Your task to perform on an android device: toggle improve location accuracy Image 0: 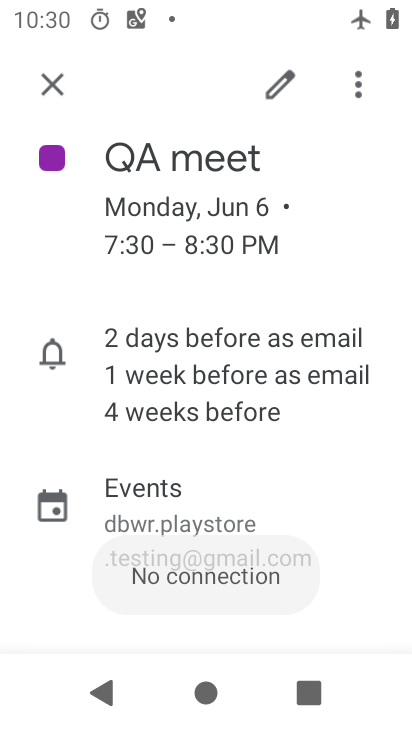
Step 0: press home button
Your task to perform on an android device: toggle improve location accuracy Image 1: 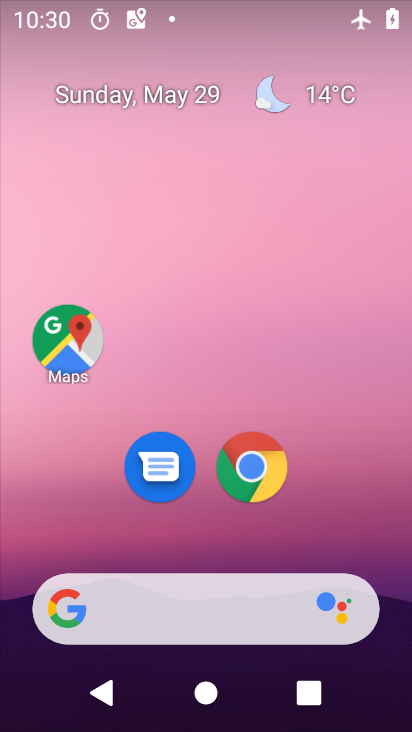
Step 1: drag from (205, 548) to (189, 165)
Your task to perform on an android device: toggle improve location accuracy Image 2: 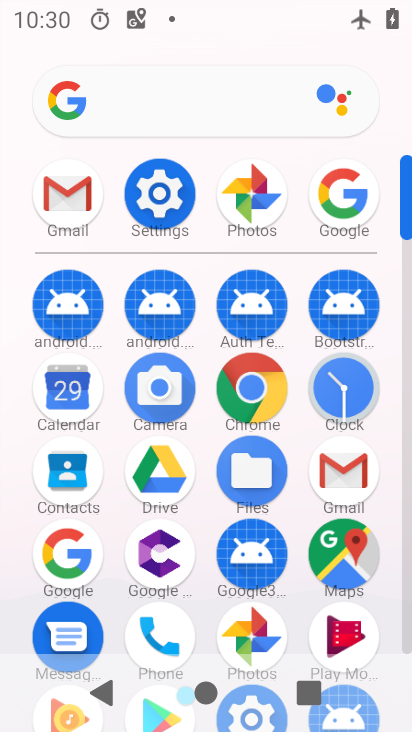
Step 2: click (174, 174)
Your task to perform on an android device: toggle improve location accuracy Image 3: 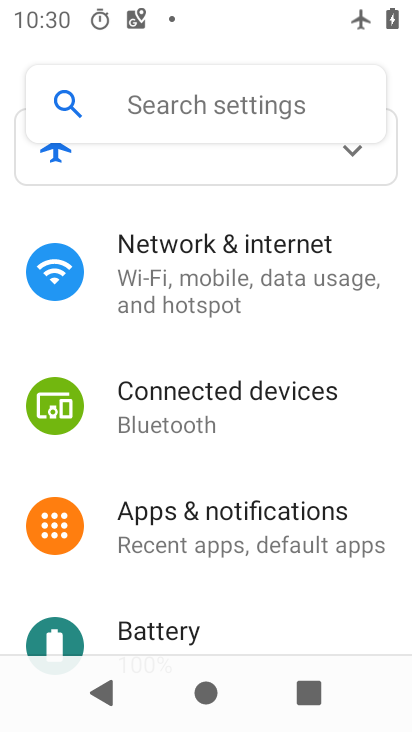
Step 3: drag from (271, 586) to (274, 265)
Your task to perform on an android device: toggle improve location accuracy Image 4: 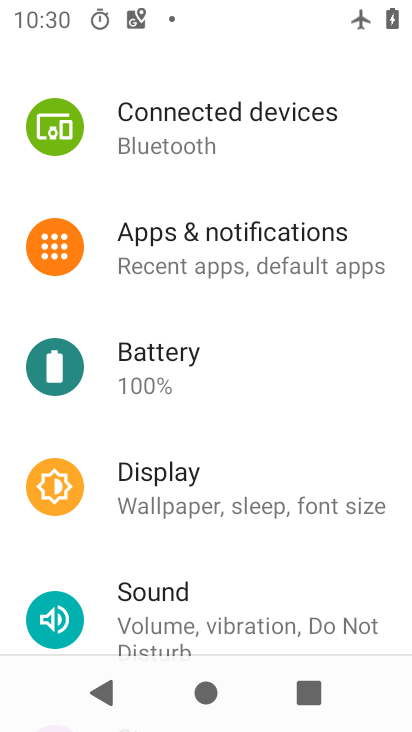
Step 4: drag from (265, 586) to (238, 197)
Your task to perform on an android device: toggle improve location accuracy Image 5: 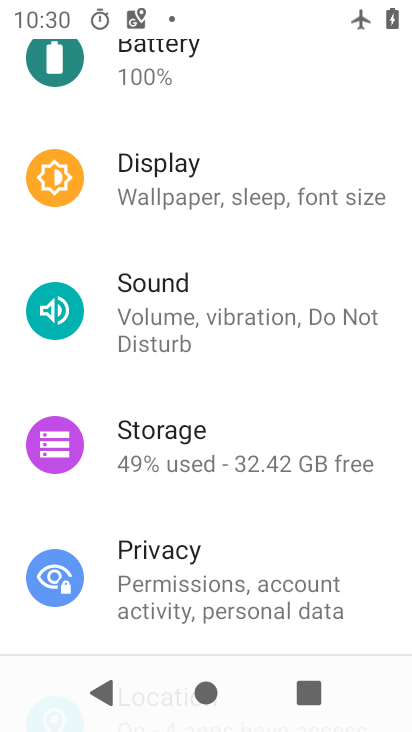
Step 5: drag from (229, 600) to (232, 315)
Your task to perform on an android device: toggle improve location accuracy Image 6: 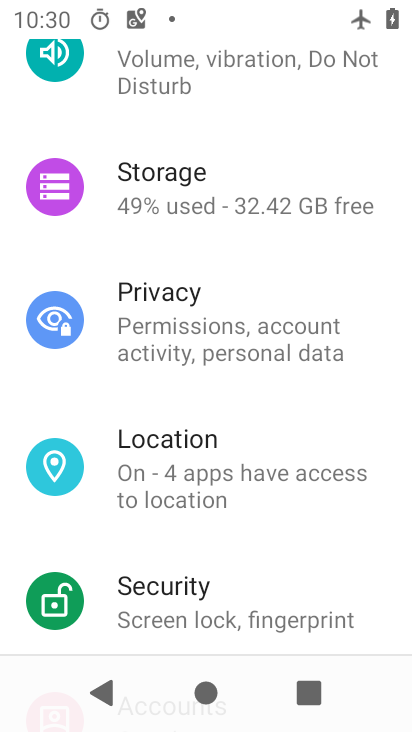
Step 6: click (204, 478)
Your task to perform on an android device: toggle improve location accuracy Image 7: 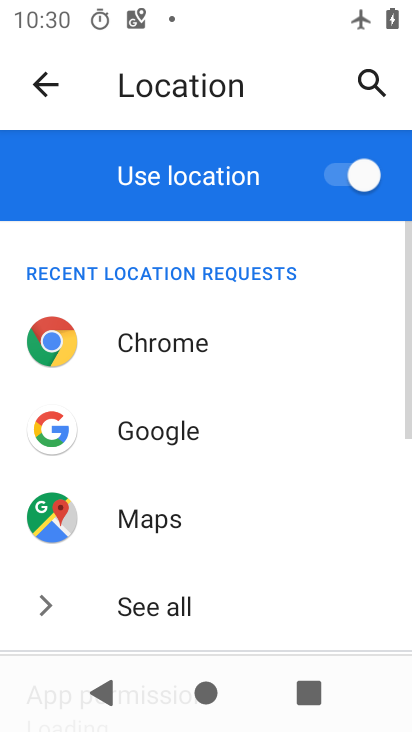
Step 7: drag from (204, 545) to (217, 260)
Your task to perform on an android device: toggle improve location accuracy Image 8: 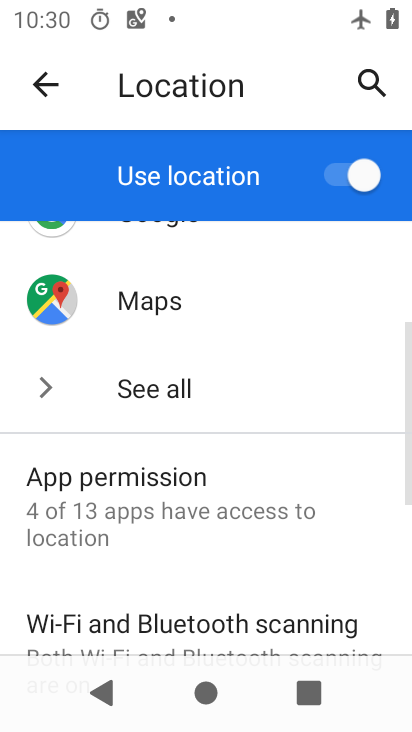
Step 8: drag from (255, 542) to (246, 285)
Your task to perform on an android device: toggle improve location accuracy Image 9: 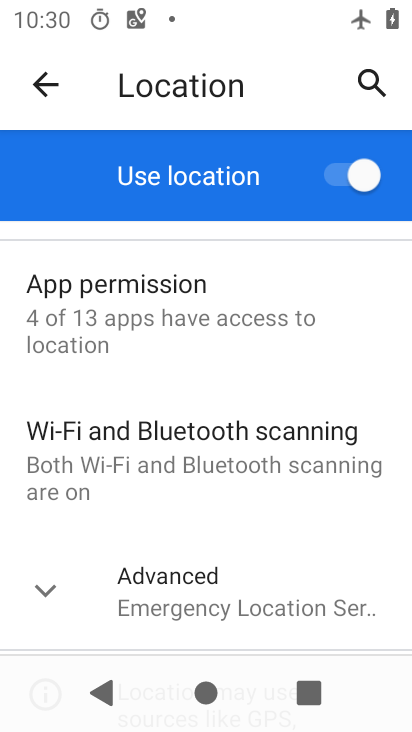
Step 9: click (206, 597)
Your task to perform on an android device: toggle improve location accuracy Image 10: 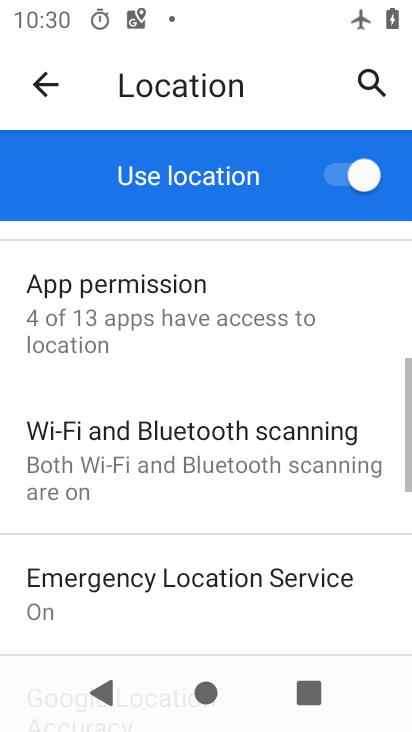
Step 10: drag from (217, 591) to (227, 327)
Your task to perform on an android device: toggle improve location accuracy Image 11: 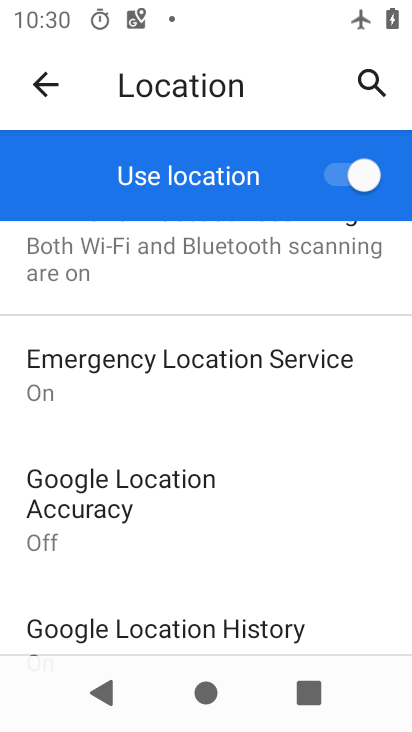
Step 11: click (167, 517)
Your task to perform on an android device: toggle improve location accuracy Image 12: 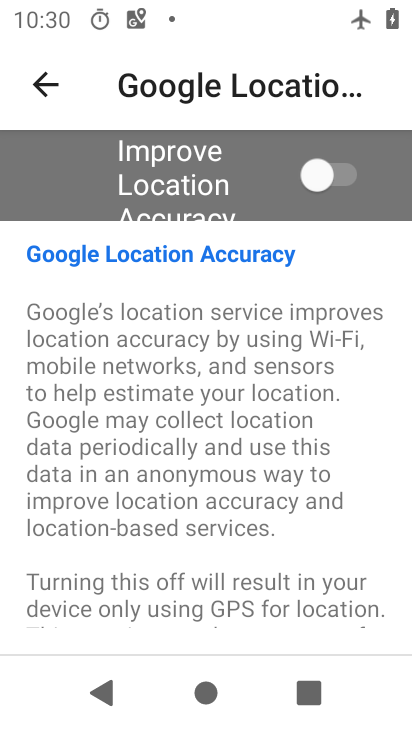
Step 12: click (345, 164)
Your task to perform on an android device: toggle improve location accuracy Image 13: 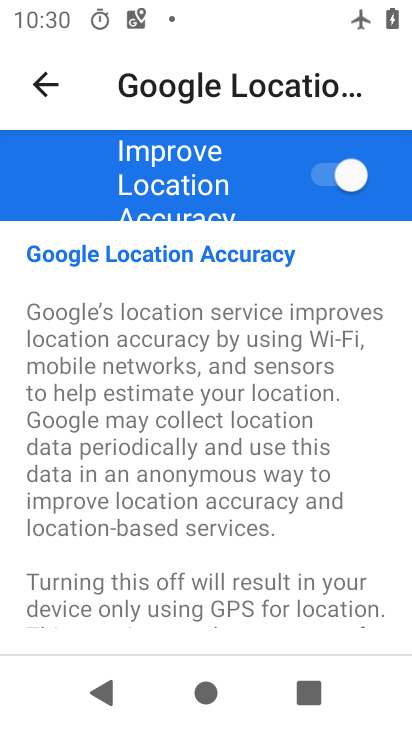
Step 13: task complete